Your task to perform on an android device: install app "DoorDash - Food Delivery" Image 0: 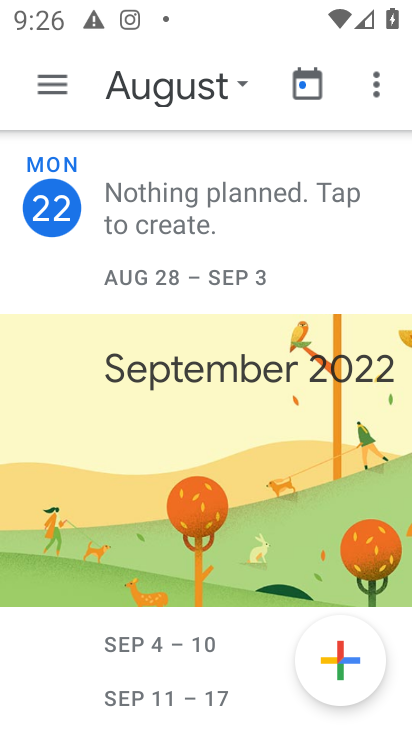
Step 0: press home button
Your task to perform on an android device: install app "DoorDash - Food Delivery" Image 1: 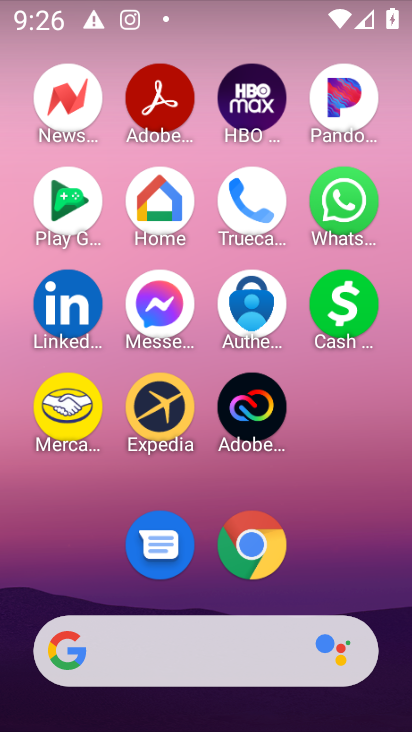
Step 1: drag from (354, 565) to (362, 35)
Your task to perform on an android device: install app "DoorDash - Food Delivery" Image 2: 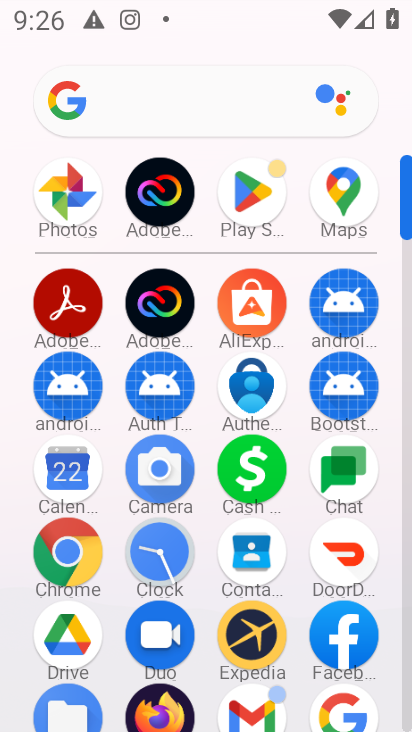
Step 2: click (245, 196)
Your task to perform on an android device: install app "DoorDash - Food Delivery" Image 3: 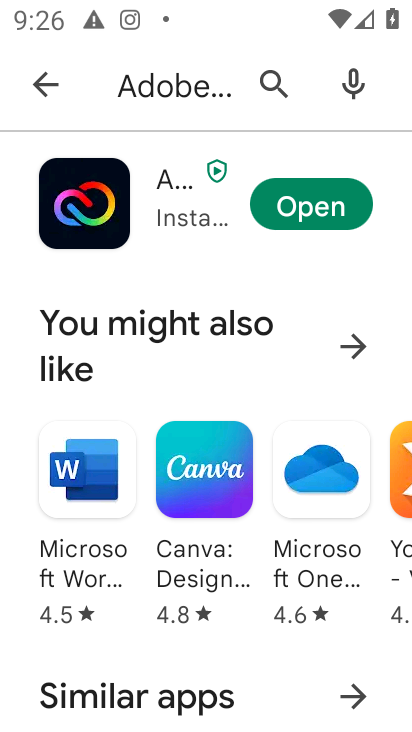
Step 3: press back button
Your task to perform on an android device: install app "DoorDash - Food Delivery" Image 4: 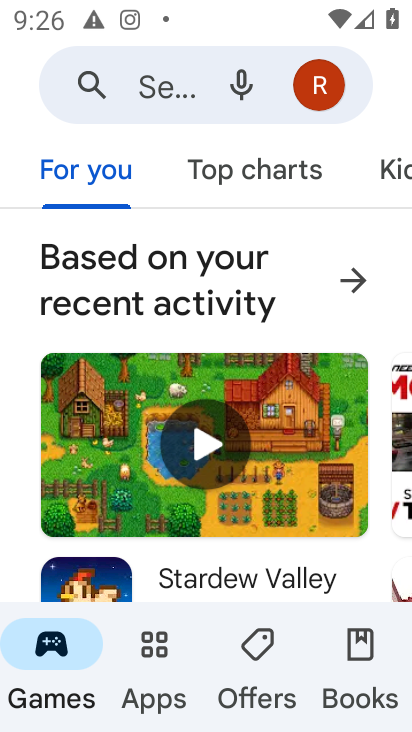
Step 4: click (146, 88)
Your task to perform on an android device: install app "DoorDash - Food Delivery" Image 5: 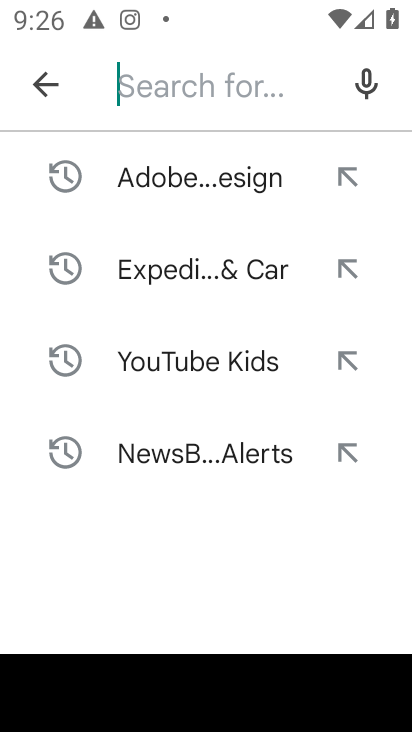
Step 5: type "DoorDash - Food Delivery"
Your task to perform on an android device: install app "DoorDash - Food Delivery" Image 6: 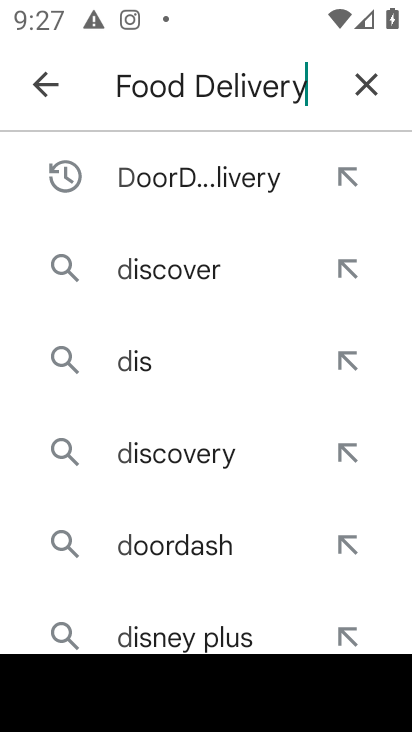
Step 6: press enter
Your task to perform on an android device: install app "DoorDash - Food Delivery" Image 7: 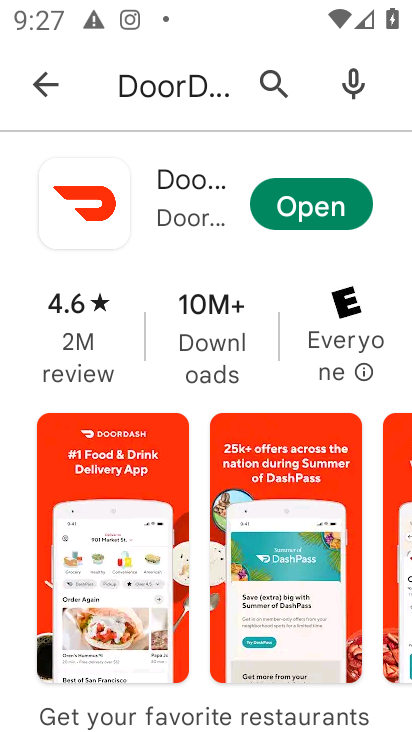
Step 7: task complete